Your task to perform on an android device: turn on sleep mode Image 0: 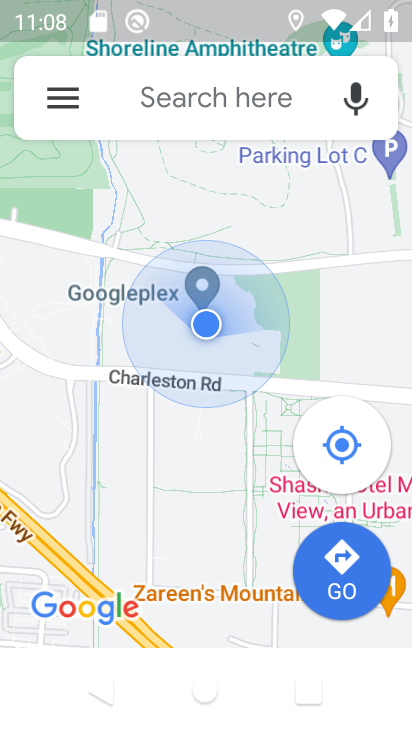
Step 0: press home button
Your task to perform on an android device: turn on sleep mode Image 1: 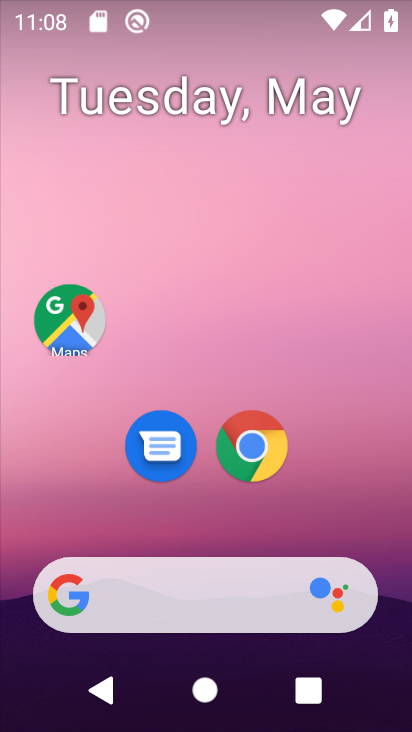
Step 1: drag from (313, 518) to (219, 60)
Your task to perform on an android device: turn on sleep mode Image 2: 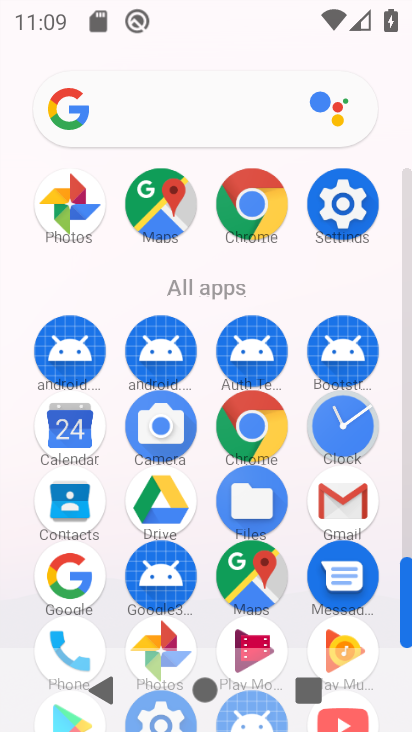
Step 2: click (341, 202)
Your task to perform on an android device: turn on sleep mode Image 3: 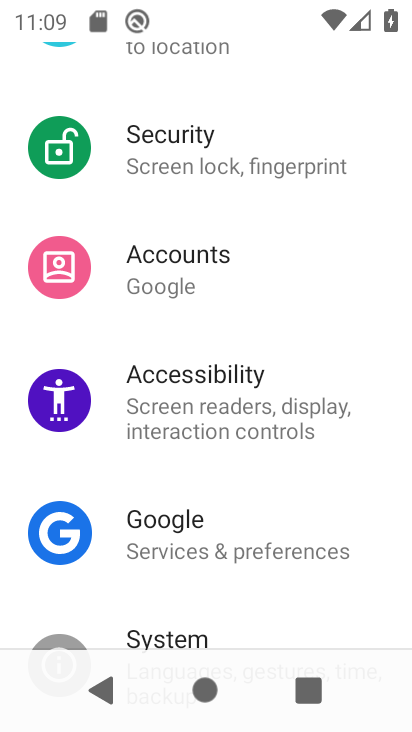
Step 3: drag from (274, 250) to (274, 373)
Your task to perform on an android device: turn on sleep mode Image 4: 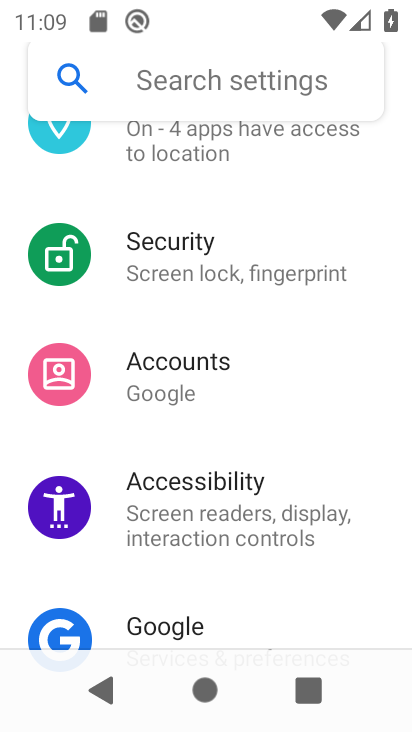
Step 4: click (275, 388)
Your task to perform on an android device: turn on sleep mode Image 5: 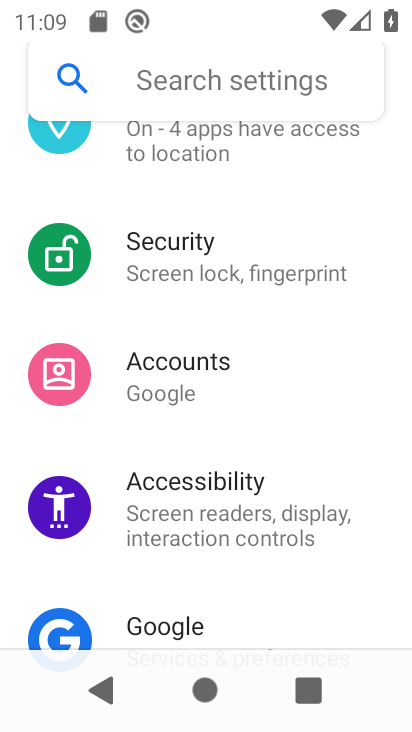
Step 5: drag from (277, 208) to (302, 364)
Your task to perform on an android device: turn on sleep mode Image 6: 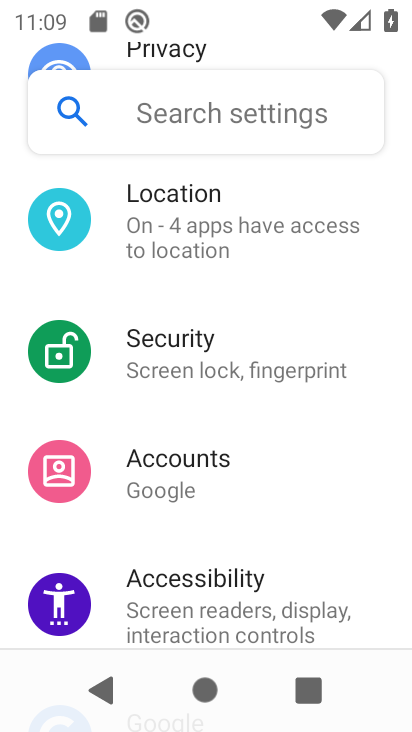
Step 6: drag from (266, 320) to (282, 432)
Your task to perform on an android device: turn on sleep mode Image 7: 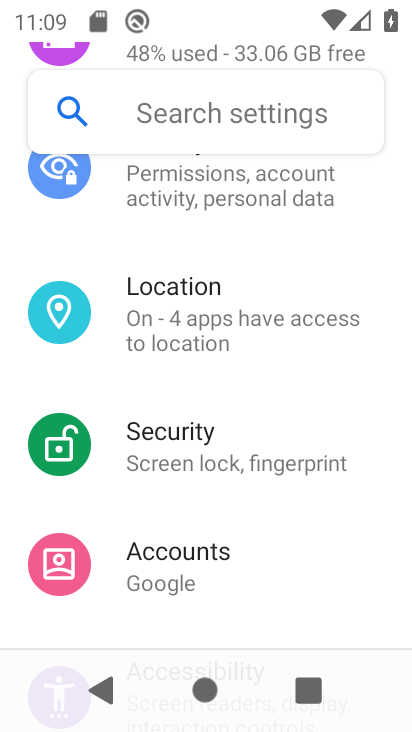
Step 7: drag from (275, 262) to (302, 414)
Your task to perform on an android device: turn on sleep mode Image 8: 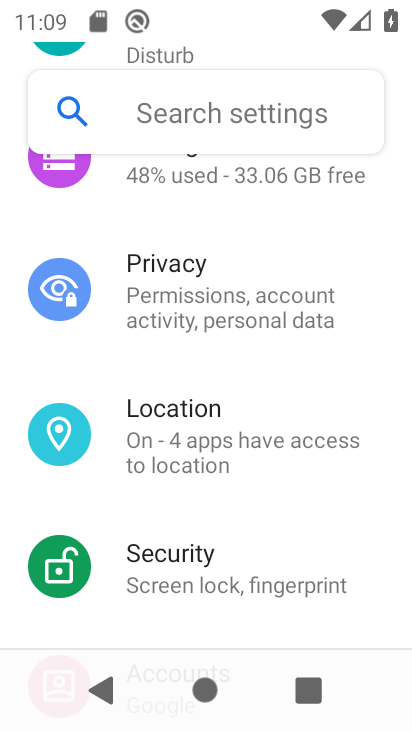
Step 8: drag from (287, 258) to (295, 461)
Your task to perform on an android device: turn on sleep mode Image 9: 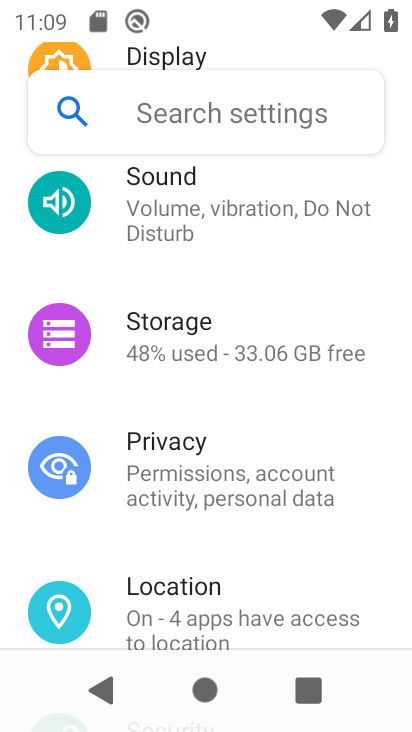
Step 9: drag from (290, 308) to (328, 456)
Your task to perform on an android device: turn on sleep mode Image 10: 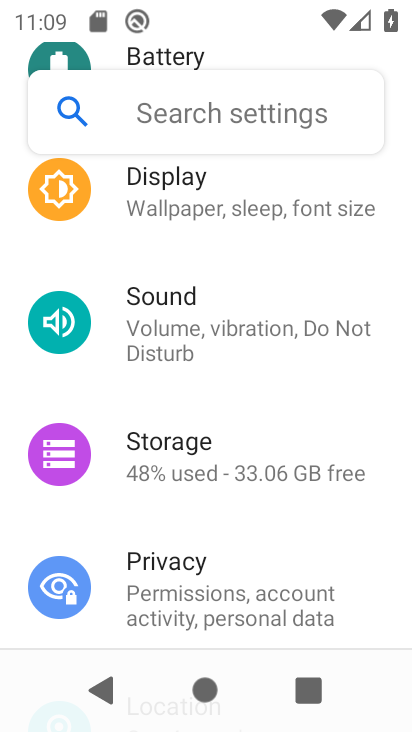
Step 10: drag from (301, 291) to (310, 426)
Your task to perform on an android device: turn on sleep mode Image 11: 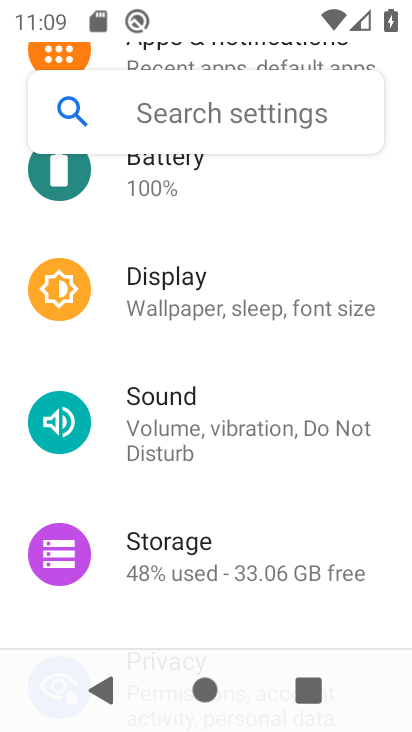
Step 11: click (299, 307)
Your task to perform on an android device: turn on sleep mode Image 12: 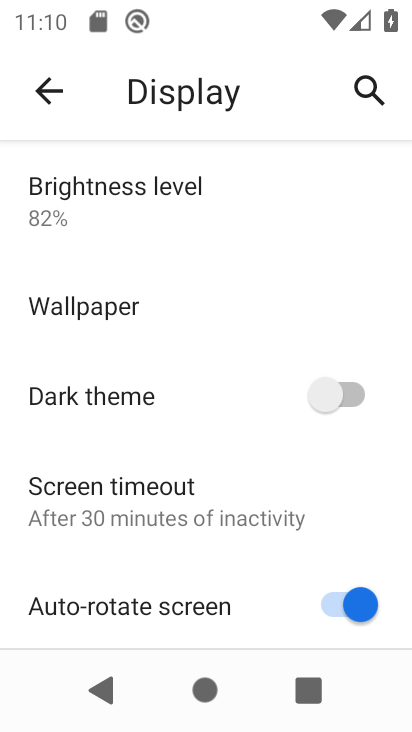
Step 12: drag from (151, 461) to (200, 335)
Your task to perform on an android device: turn on sleep mode Image 13: 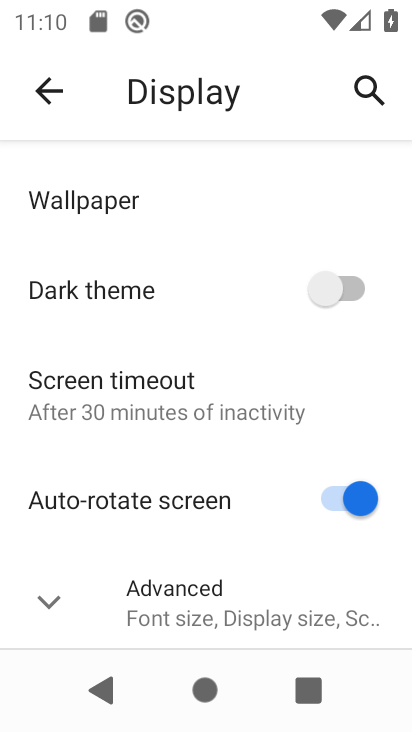
Step 13: drag from (148, 455) to (184, 330)
Your task to perform on an android device: turn on sleep mode Image 14: 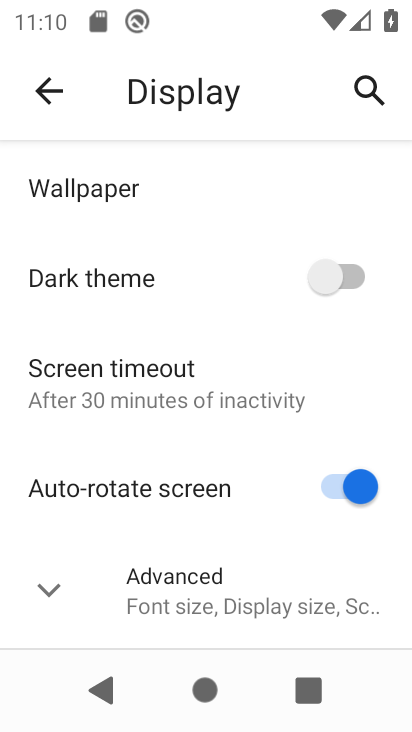
Step 14: click (106, 396)
Your task to perform on an android device: turn on sleep mode Image 15: 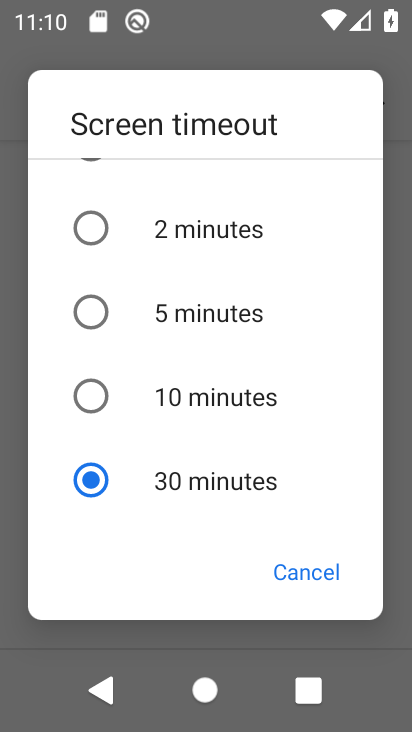
Step 15: drag from (203, 444) to (248, 329)
Your task to perform on an android device: turn on sleep mode Image 16: 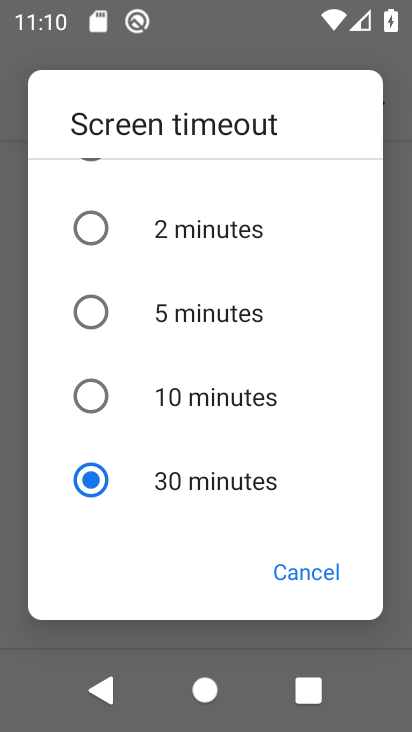
Step 16: click (277, 419)
Your task to perform on an android device: turn on sleep mode Image 17: 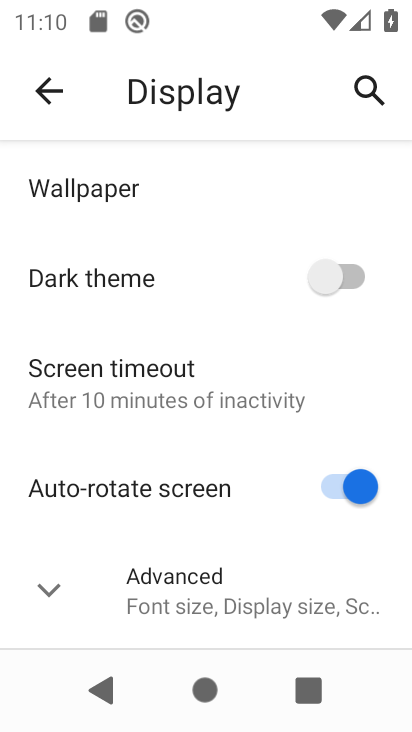
Step 17: click (215, 601)
Your task to perform on an android device: turn on sleep mode Image 18: 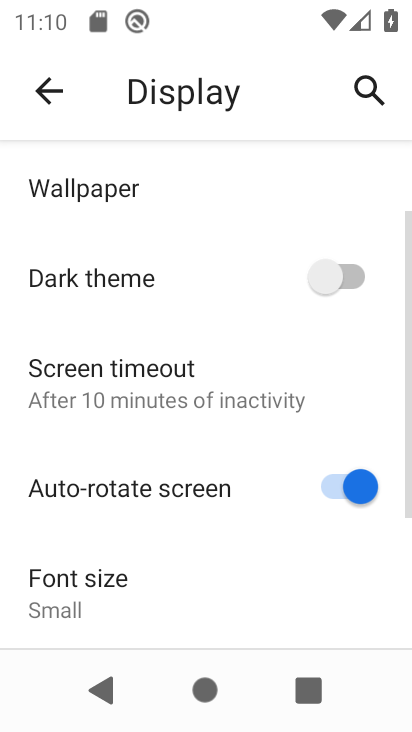
Step 18: drag from (205, 564) to (181, 400)
Your task to perform on an android device: turn on sleep mode Image 19: 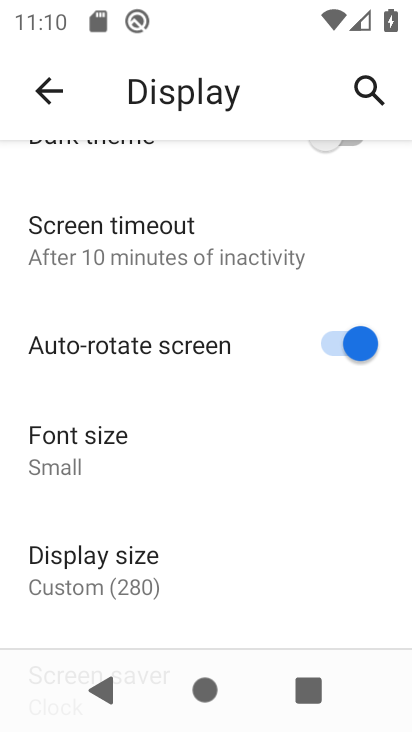
Step 19: drag from (165, 512) to (218, 362)
Your task to perform on an android device: turn on sleep mode Image 20: 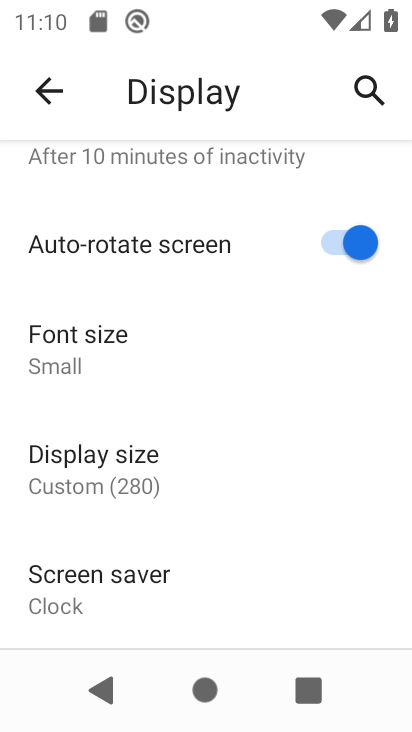
Step 20: drag from (114, 526) to (203, 385)
Your task to perform on an android device: turn on sleep mode Image 21: 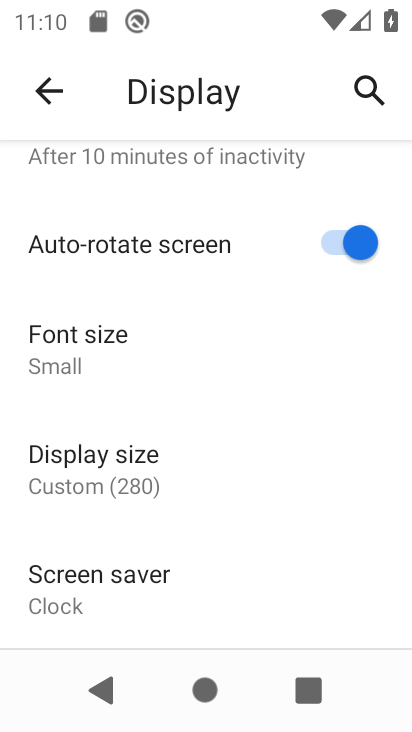
Step 21: drag from (141, 289) to (196, 471)
Your task to perform on an android device: turn on sleep mode Image 22: 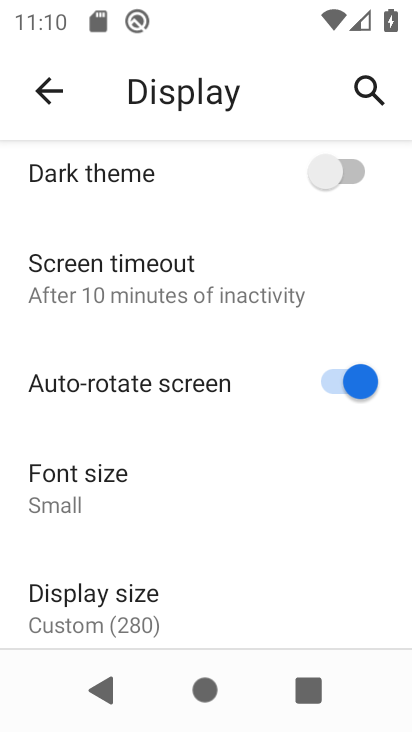
Step 22: click (199, 309)
Your task to perform on an android device: turn on sleep mode Image 23: 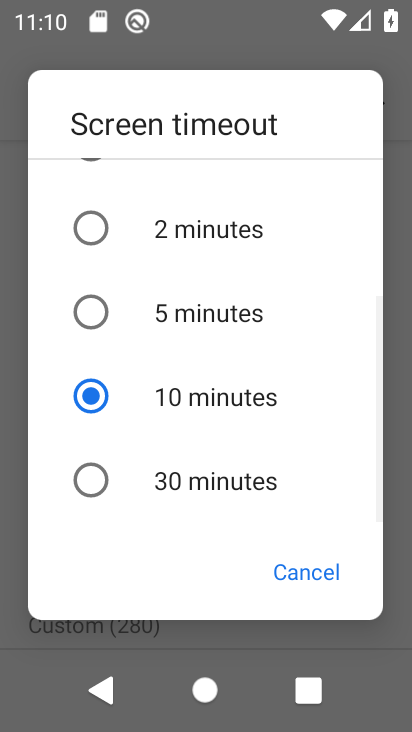
Step 23: drag from (197, 454) to (274, 250)
Your task to perform on an android device: turn on sleep mode Image 24: 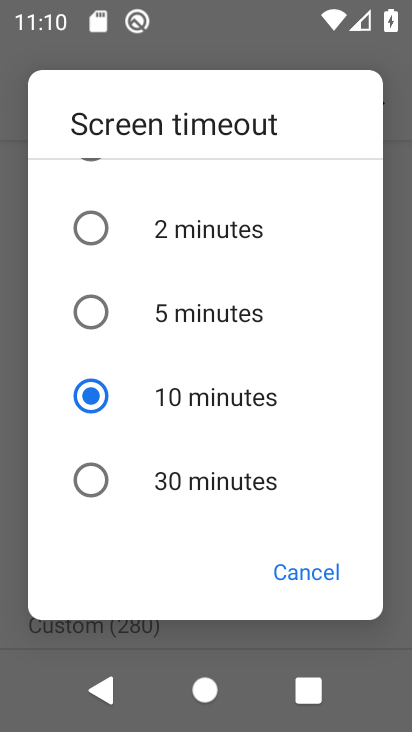
Step 24: click (314, 573)
Your task to perform on an android device: turn on sleep mode Image 25: 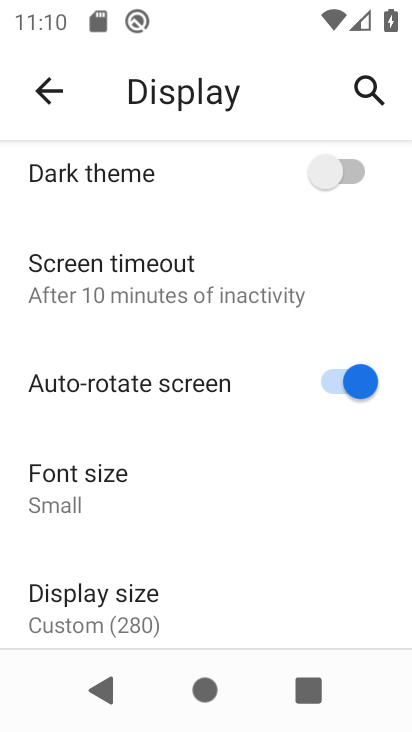
Step 25: task complete